Your task to perform on an android device: turn on bluetooth scan Image 0: 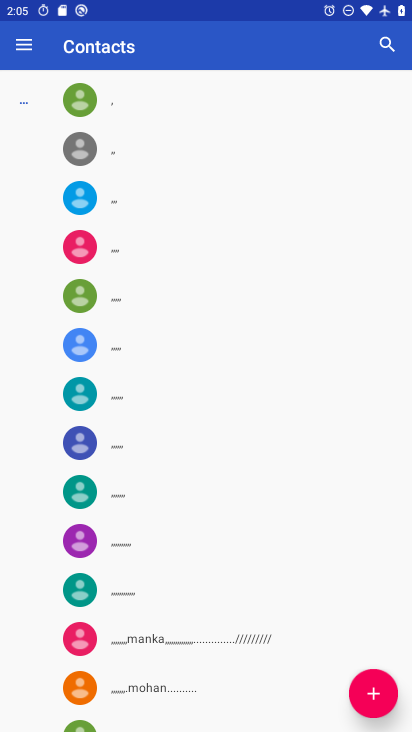
Step 0: press home button
Your task to perform on an android device: turn on bluetooth scan Image 1: 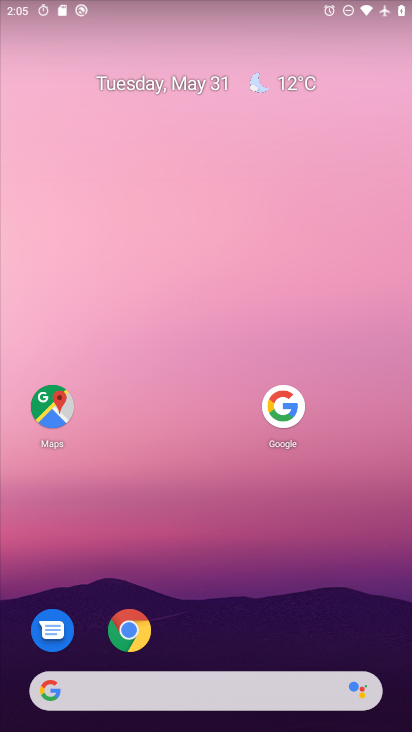
Step 1: drag from (153, 693) to (295, 58)
Your task to perform on an android device: turn on bluetooth scan Image 2: 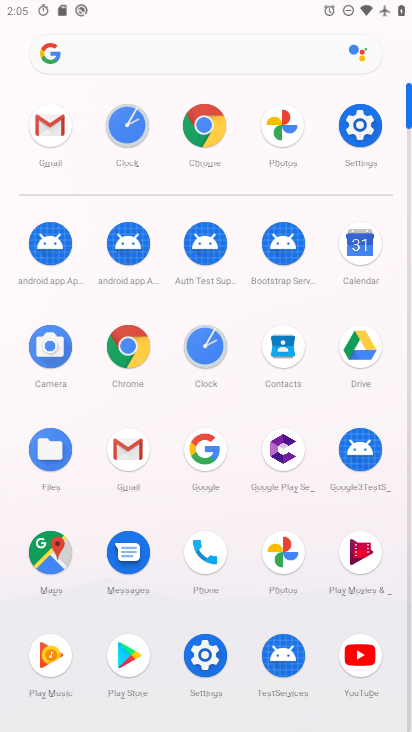
Step 2: click (366, 128)
Your task to perform on an android device: turn on bluetooth scan Image 3: 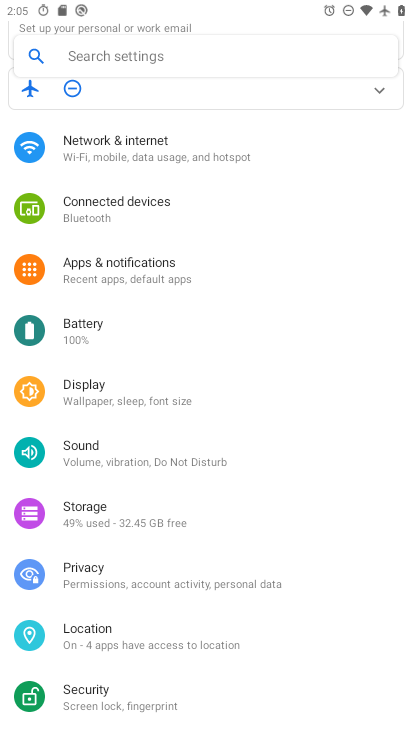
Step 3: click (104, 633)
Your task to perform on an android device: turn on bluetooth scan Image 4: 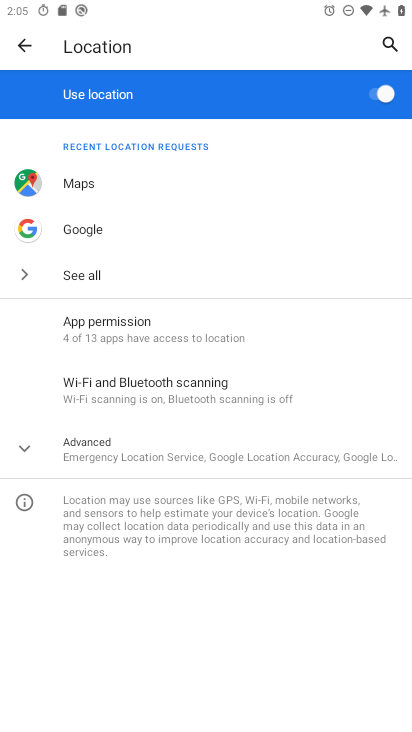
Step 4: click (164, 386)
Your task to perform on an android device: turn on bluetooth scan Image 5: 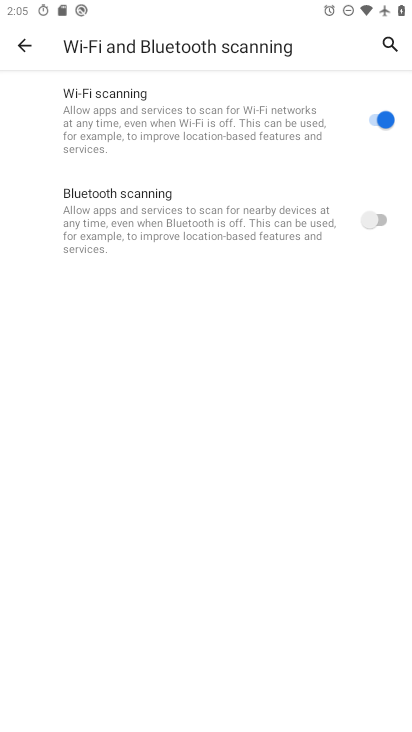
Step 5: click (382, 216)
Your task to perform on an android device: turn on bluetooth scan Image 6: 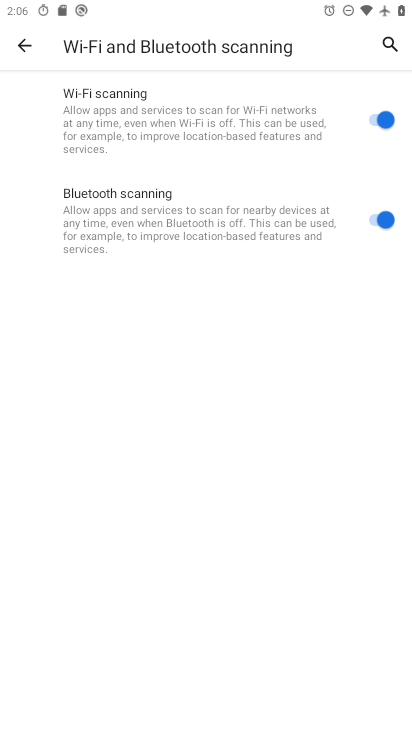
Step 6: task complete